Your task to perform on an android device: open a bookmark in the chrome app Image 0: 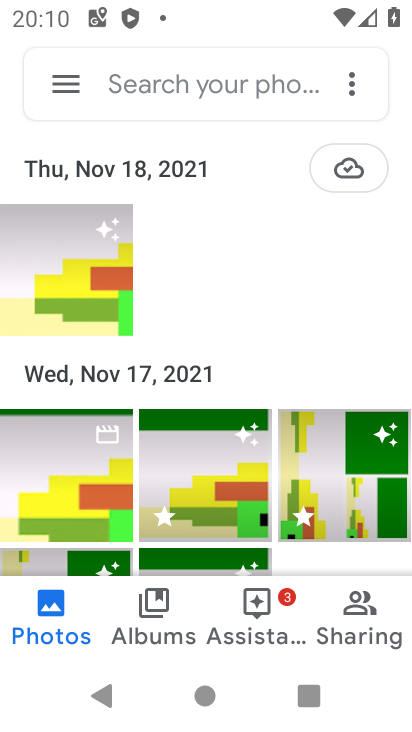
Step 0: press home button
Your task to perform on an android device: open a bookmark in the chrome app Image 1: 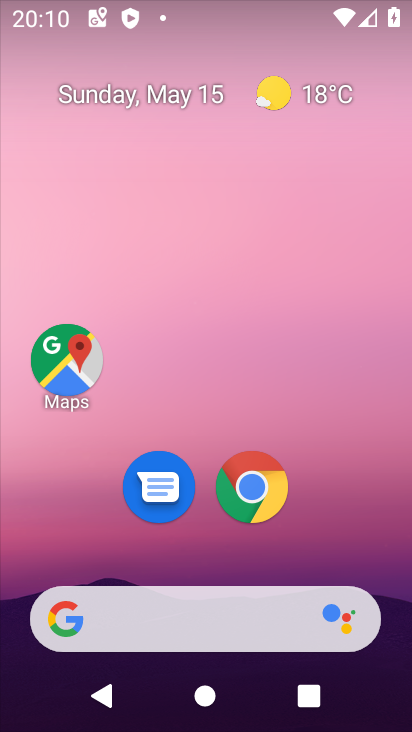
Step 1: drag from (401, 679) to (348, 297)
Your task to perform on an android device: open a bookmark in the chrome app Image 2: 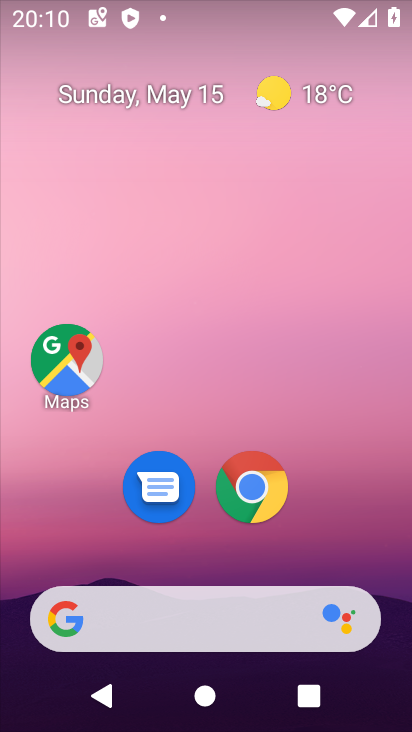
Step 2: drag from (397, 673) to (388, 380)
Your task to perform on an android device: open a bookmark in the chrome app Image 3: 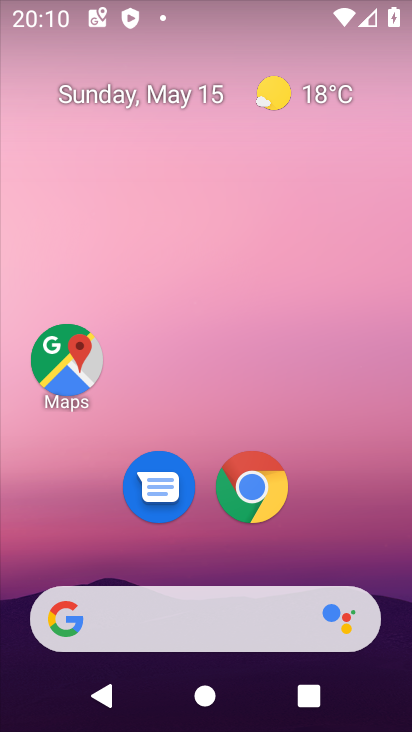
Step 3: drag from (392, 697) to (365, 325)
Your task to perform on an android device: open a bookmark in the chrome app Image 4: 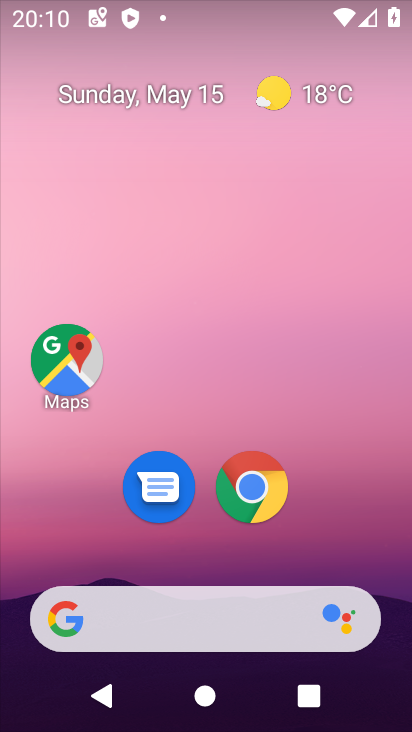
Step 4: click (258, 484)
Your task to perform on an android device: open a bookmark in the chrome app Image 5: 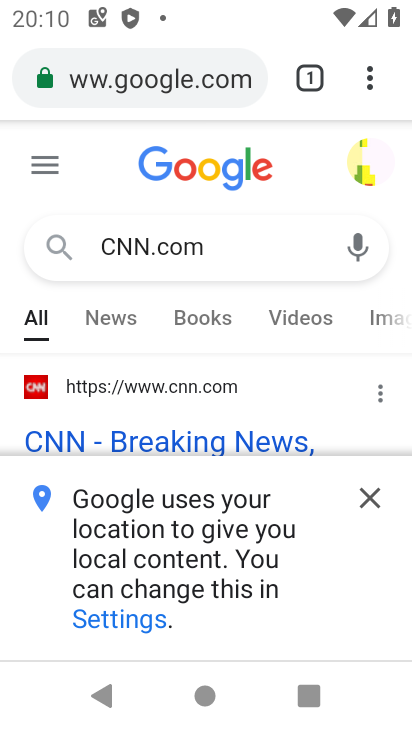
Step 5: click (366, 78)
Your task to perform on an android device: open a bookmark in the chrome app Image 6: 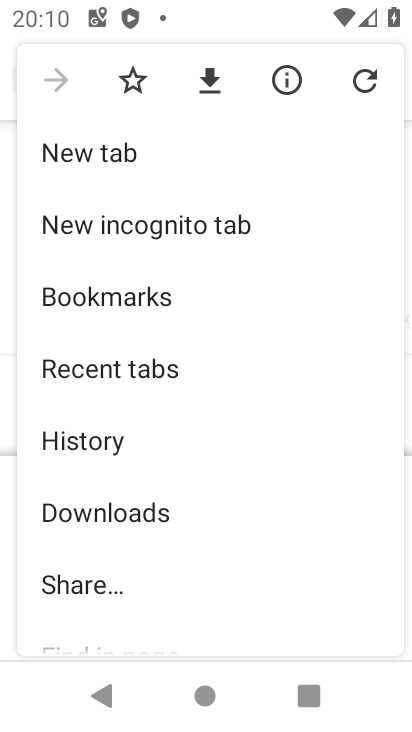
Step 6: click (93, 295)
Your task to perform on an android device: open a bookmark in the chrome app Image 7: 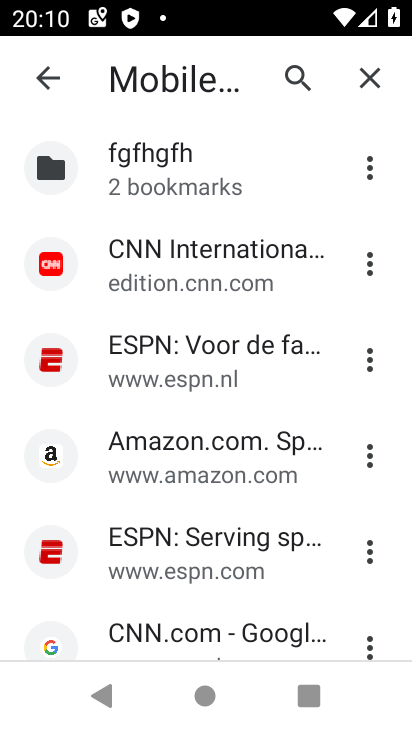
Step 7: click (149, 263)
Your task to perform on an android device: open a bookmark in the chrome app Image 8: 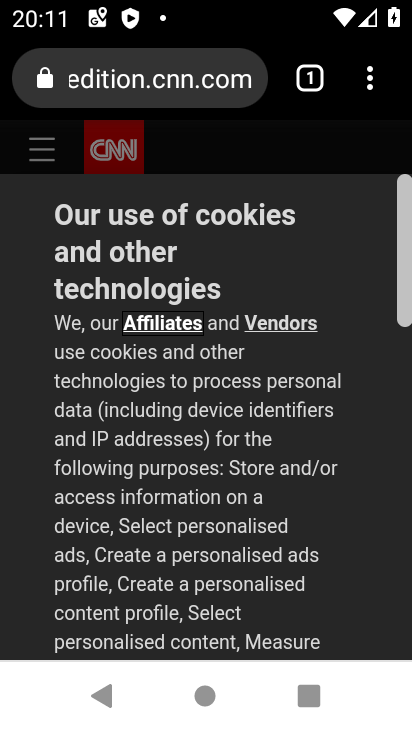
Step 8: task complete